Your task to perform on an android device: choose inbox layout in the gmail app Image 0: 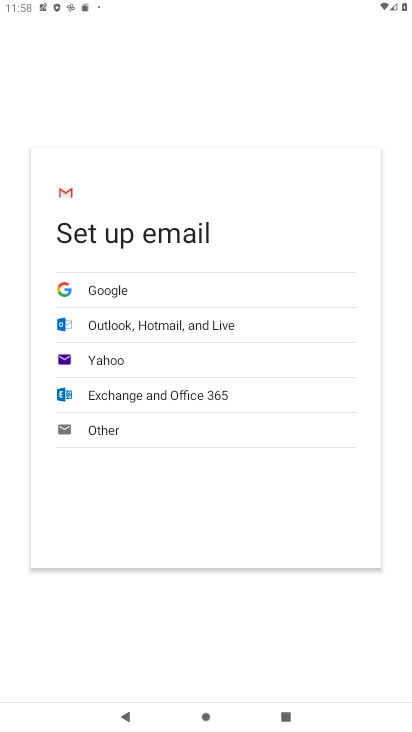
Step 0: task complete